Your task to perform on an android device: delete the emails in spam in the gmail app Image 0: 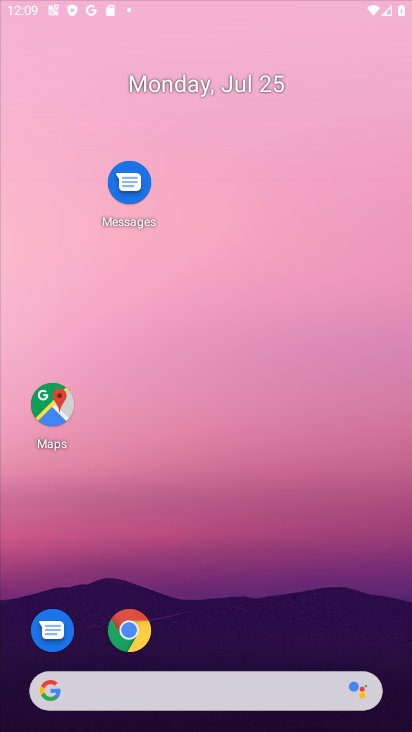
Step 0: press home button
Your task to perform on an android device: delete the emails in spam in the gmail app Image 1: 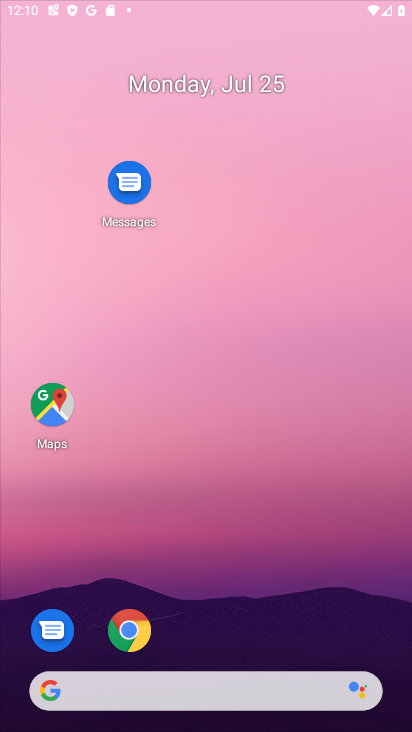
Step 1: drag from (340, 607) to (332, 19)
Your task to perform on an android device: delete the emails in spam in the gmail app Image 2: 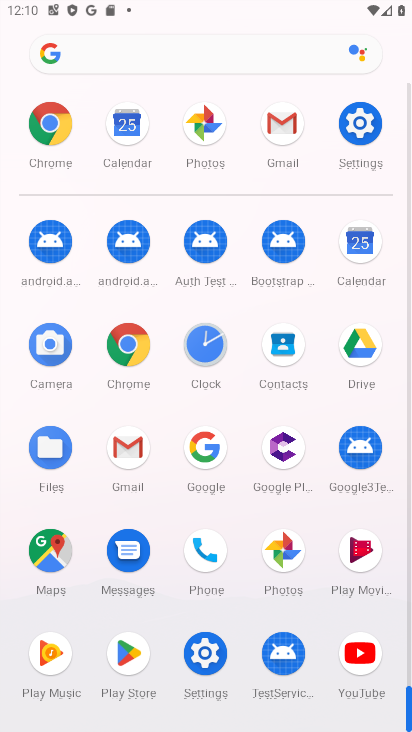
Step 2: click (266, 129)
Your task to perform on an android device: delete the emails in spam in the gmail app Image 3: 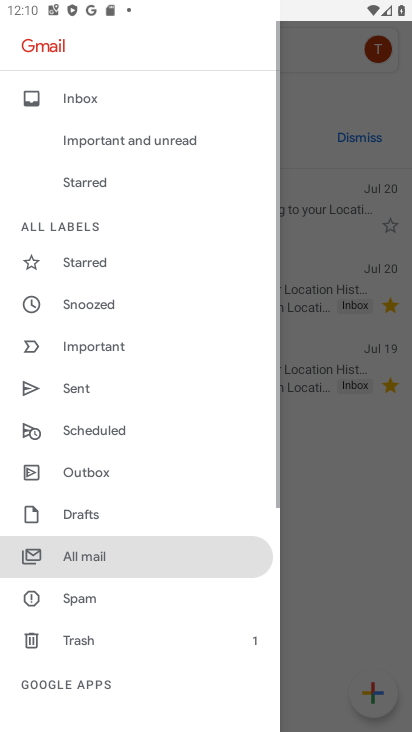
Step 3: click (326, 167)
Your task to perform on an android device: delete the emails in spam in the gmail app Image 4: 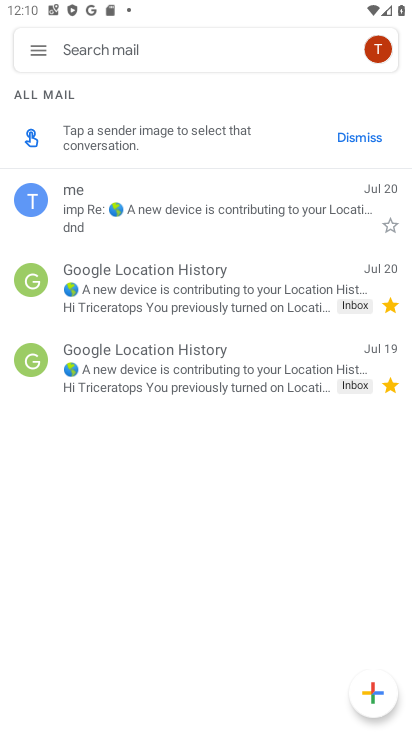
Step 4: click (231, 292)
Your task to perform on an android device: delete the emails in spam in the gmail app Image 5: 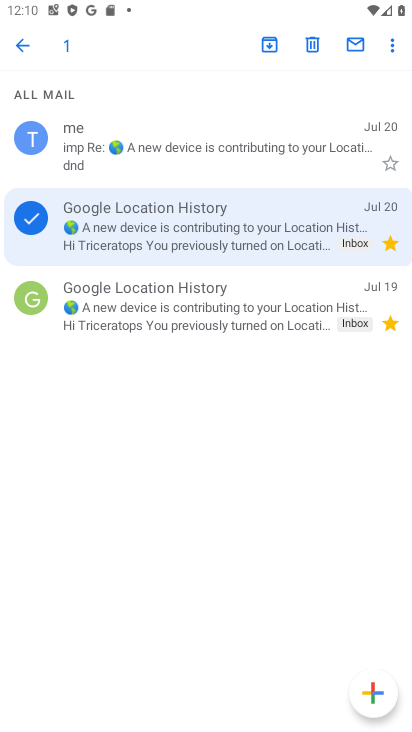
Step 5: click (17, 60)
Your task to perform on an android device: delete the emails in spam in the gmail app Image 6: 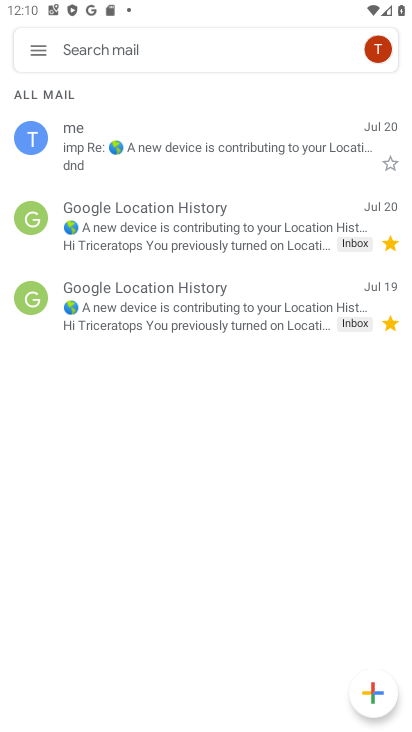
Step 6: click (37, 68)
Your task to perform on an android device: delete the emails in spam in the gmail app Image 7: 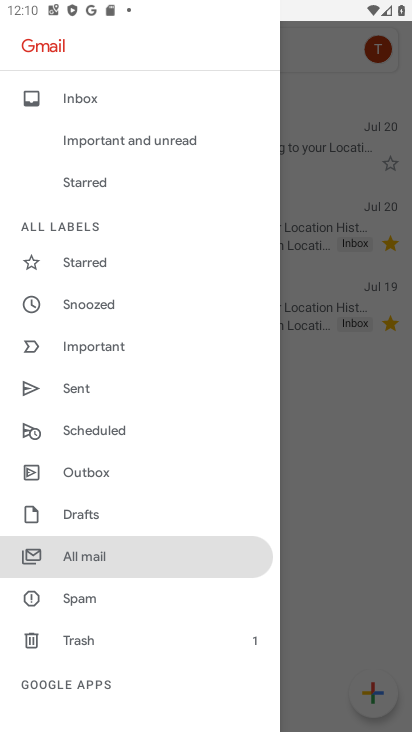
Step 7: click (59, 603)
Your task to perform on an android device: delete the emails in spam in the gmail app Image 8: 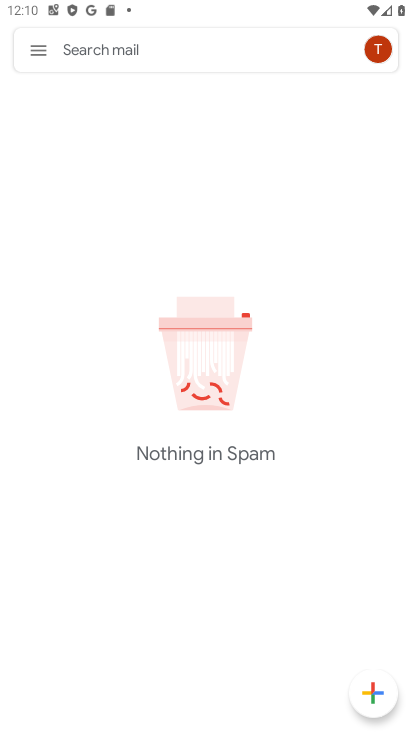
Step 8: task complete